Your task to perform on an android device: empty trash in the gmail app Image 0: 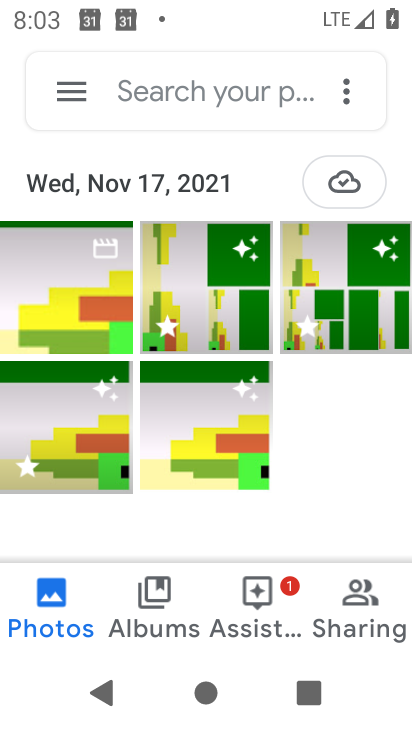
Step 0: click (60, 85)
Your task to perform on an android device: empty trash in the gmail app Image 1: 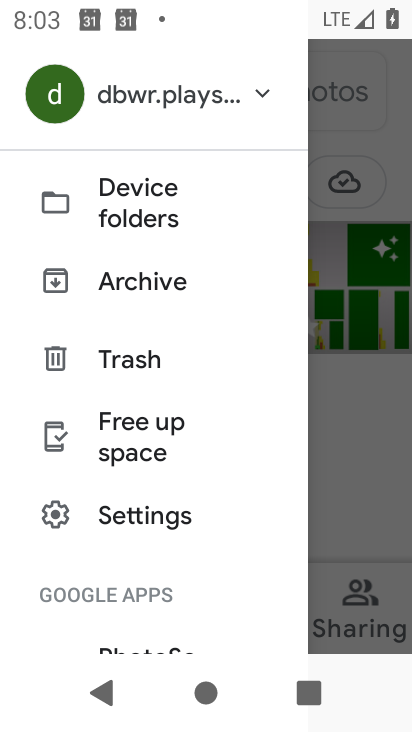
Step 1: click (136, 364)
Your task to perform on an android device: empty trash in the gmail app Image 2: 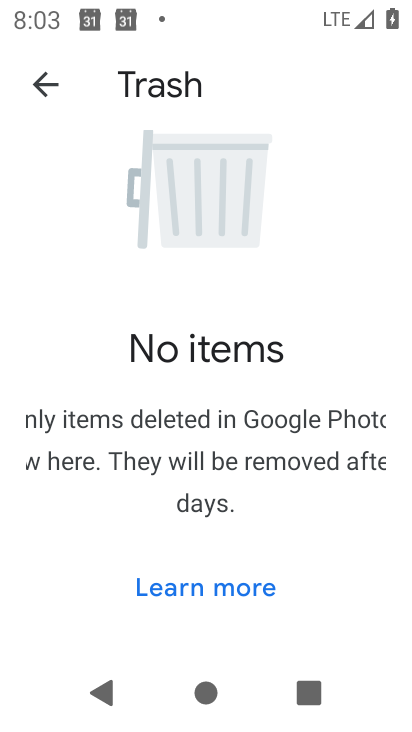
Step 2: task complete